Your task to perform on an android device: set the timer Image 0: 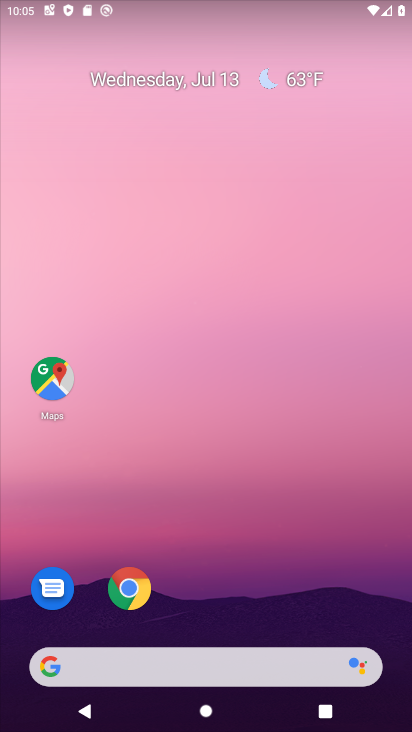
Step 0: drag from (78, 610) to (344, 89)
Your task to perform on an android device: set the timer Image 1: 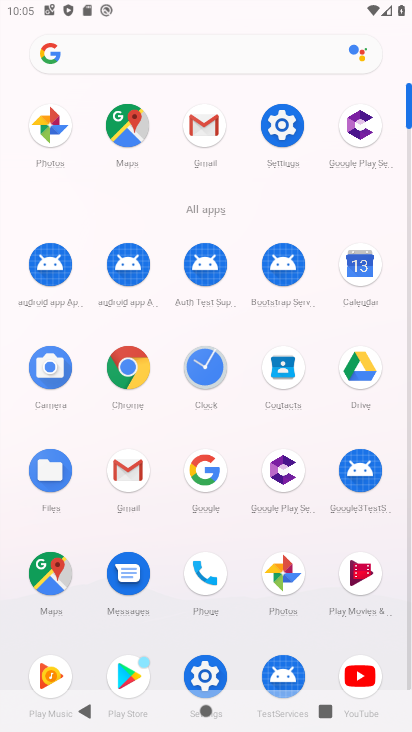
Step 1: click (196, 366)
Your task to perform on an android device: set the timer Image 2: 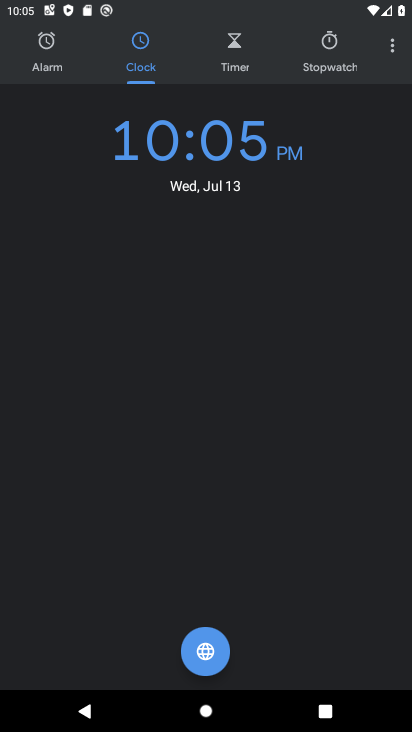
Step 2: click (249, 58)
Your task to perform on an android device: set the timer Image 3: 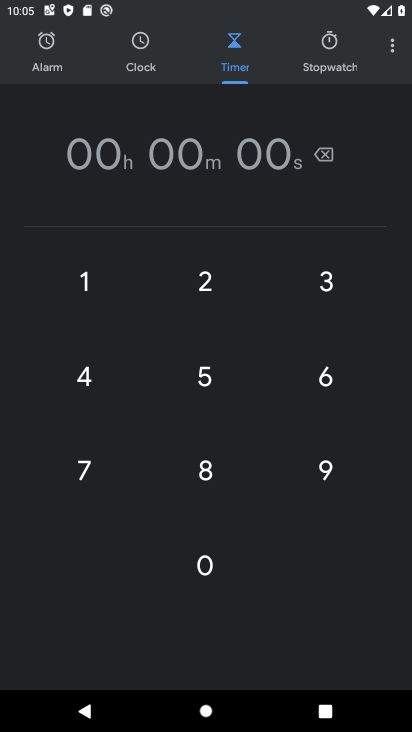
Step 3: click (80, 292)
Your task to perform on an android device: set the timer Image 4: 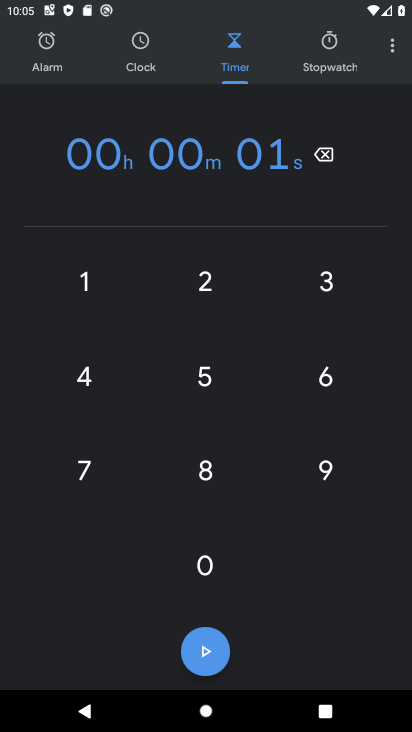
Step 4: click (207, 554)
Your task to perform on an android device: set the timer Image 5: 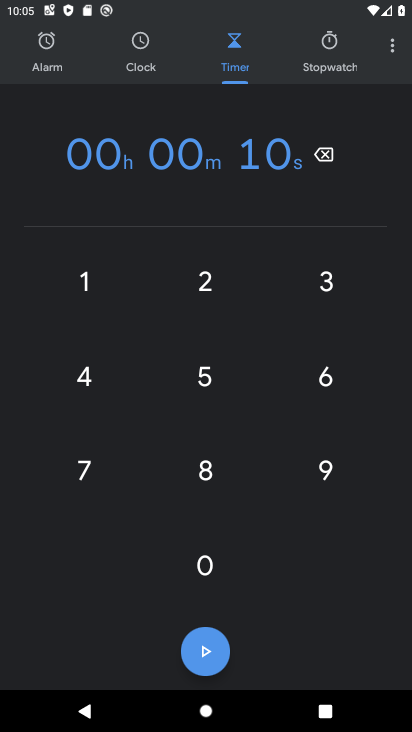
Step 5: click (209, 554)
Your task to perform on an android device: set the timer Image 6: 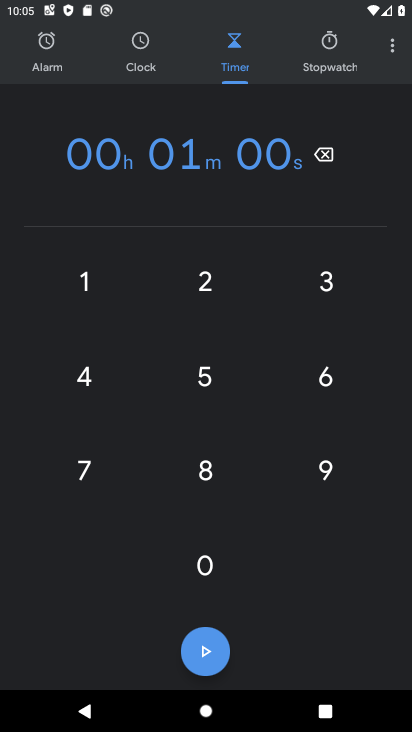
Step 6: click (209, 554)
Your task to perform on an android device: set the timer Image 7: 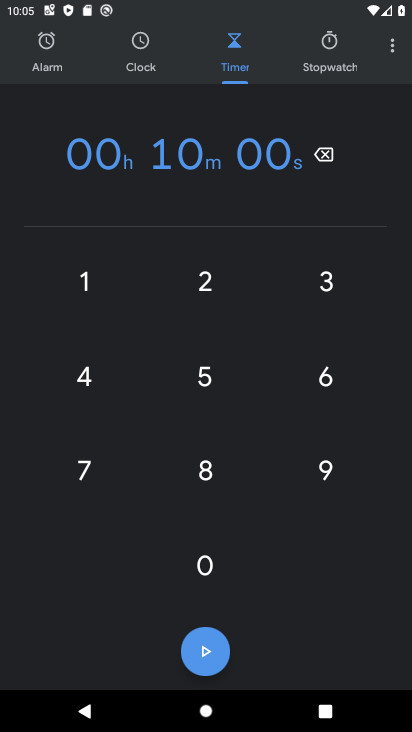
Step 7: click (210, 554)
Your task to perform on an android device: set the timer Image 8: 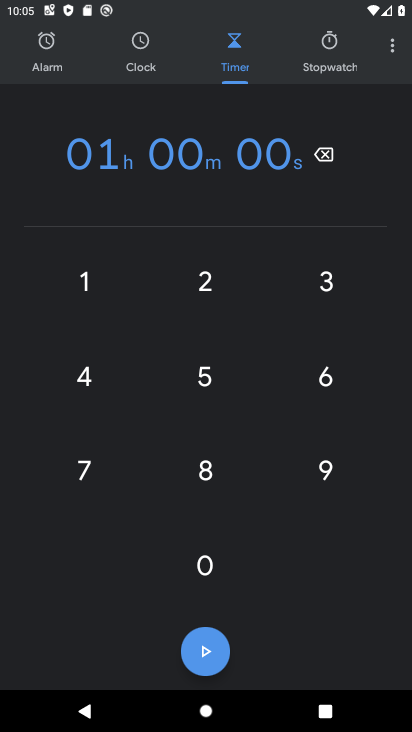
Step 8: click (214, 647)
Your task to perform on an android device: set the timer Image 9: 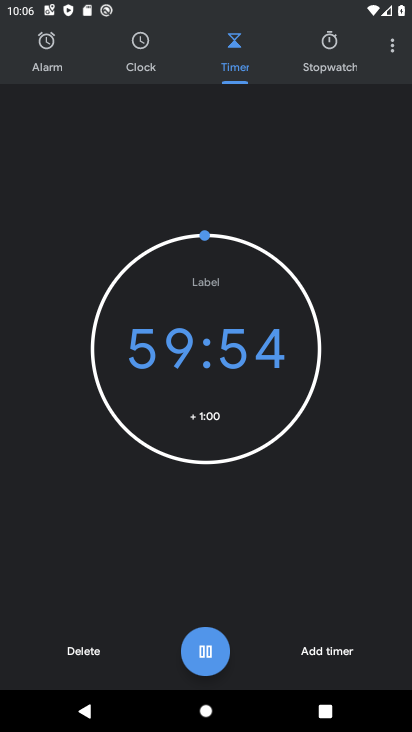
Step 9: task complete